Your task to perform on an android device: Open maps Image 0: 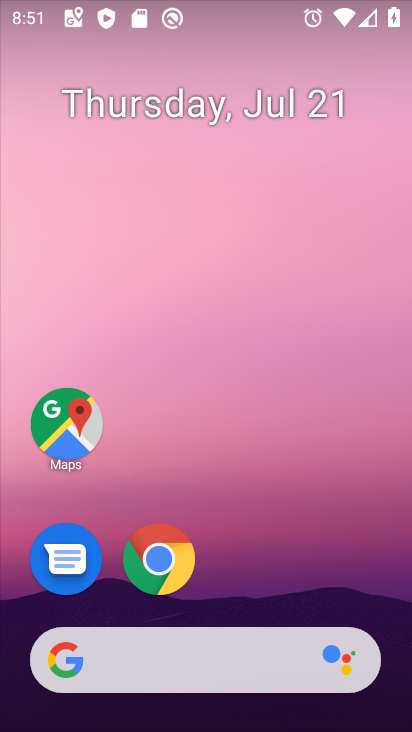
Step 0: drag from (360, 571) to (344, 160)
Your task to perform on an android device: Open maps Image 1: 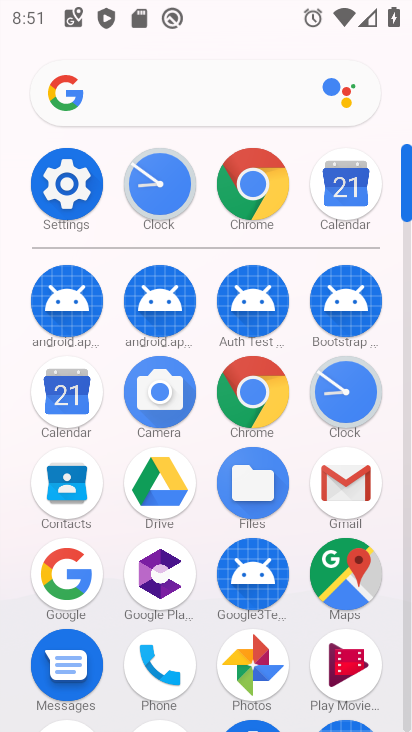
Step 1: click (360, 570)
Your task to perform on an android device: Open maps Image 2: 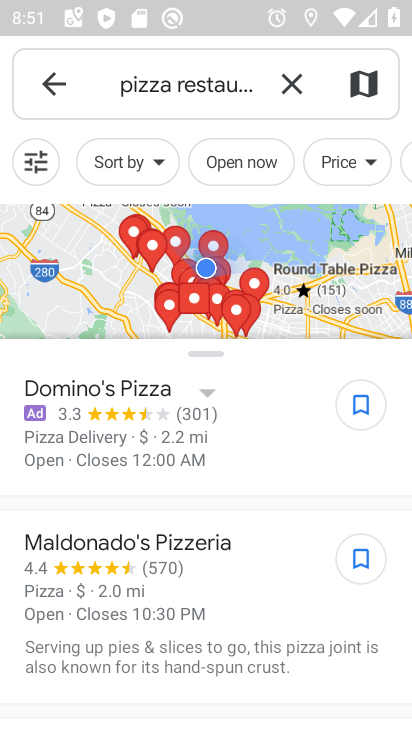
Step 2: task complete